Your task to perform on an android device: Open Chrome and go to settings Image 0: 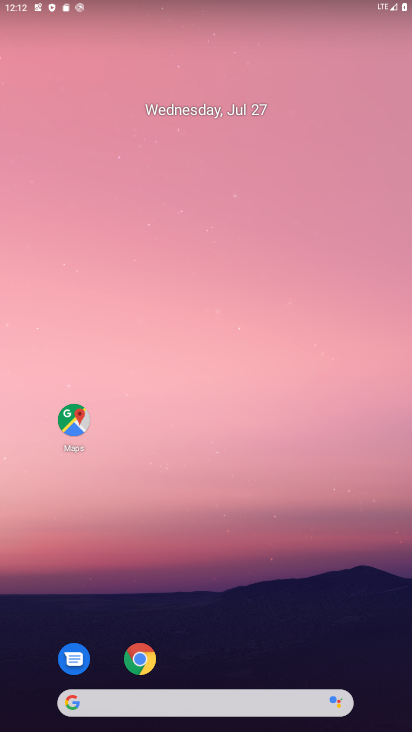
Step 0: press home button
Your task to perform on an android device: Open Chrome and go to settings Image 1: 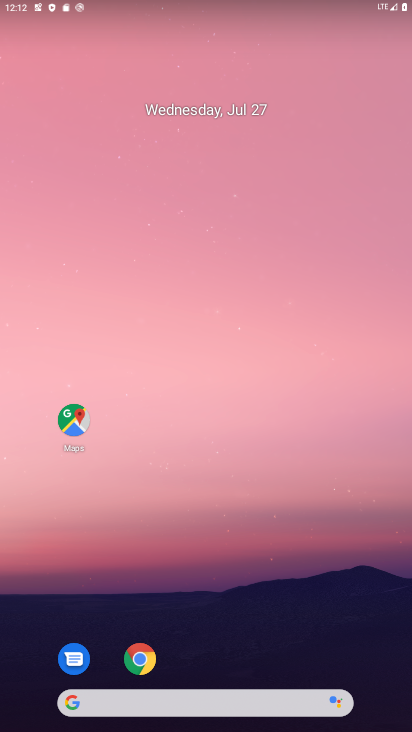
Step 1: drag from (216, 596) to (225, 108)
Your task to perform on an android device: Open Chrome and go to settings Image 2: 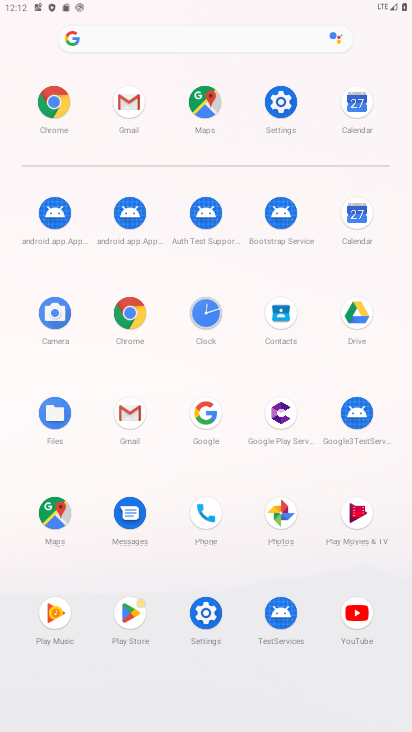
Step 2: click (127, 320)
Your task to perform on an android device: Open Chrome and go to settings Image 3: 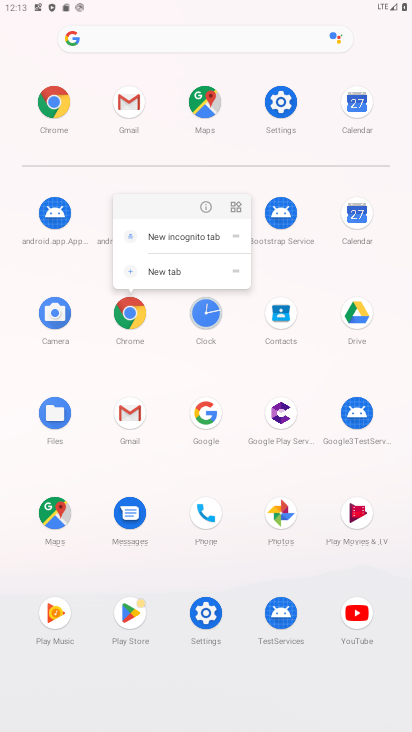
Step 3: click (142, 328)
Your task to perform on an android device: Open Chrome and go to settings Image 4: 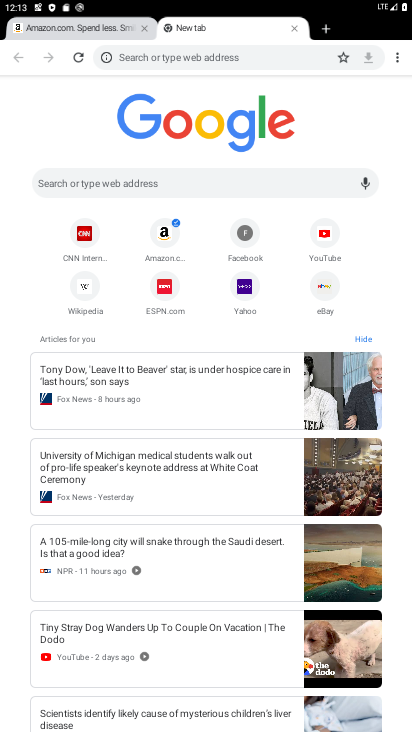
Step 4: click (398, 58)
Your task to perform on an android device: Open Chrome and go to settings Image 5: 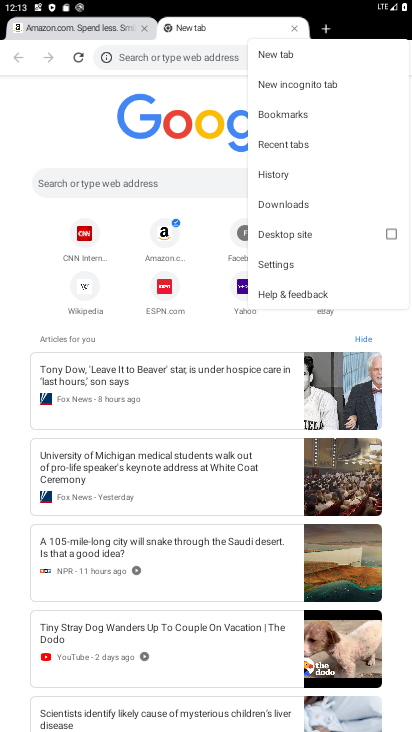
Step 5: click (309, 274)
Your task to perform on an android device: Open Chrome and go to settings Image 6: 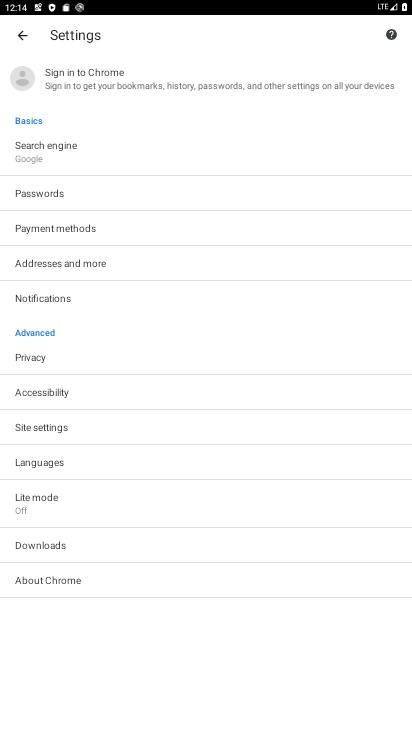
Step 6: task complete